Your task to perform on an android device: Open Youtube and go to "Your channel" Image 0: 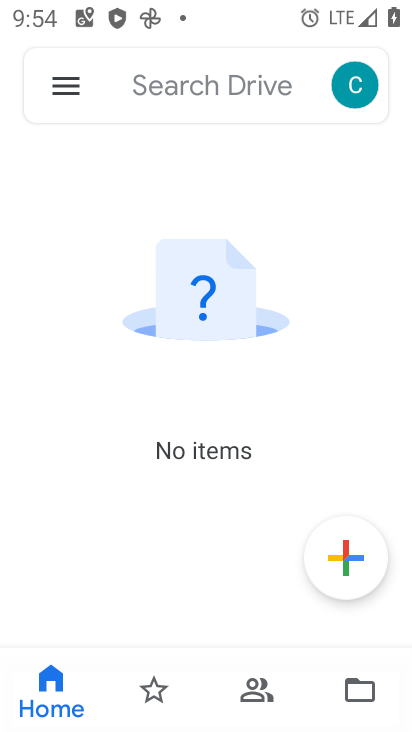
Step 0: press home button
Your task to perform on an android device: Open Youtube and go to "Your channel" Image 1: 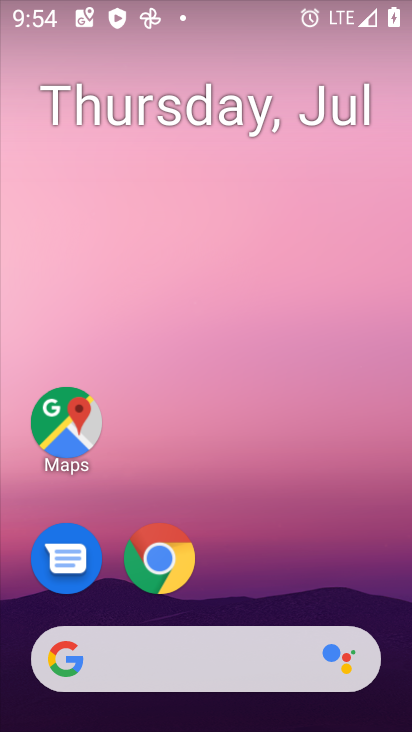
Step 1: drag from (315, 556) to (330, 289)
Your task to perform on an android device: Open Youtube and go to "Your channel" Image 2: 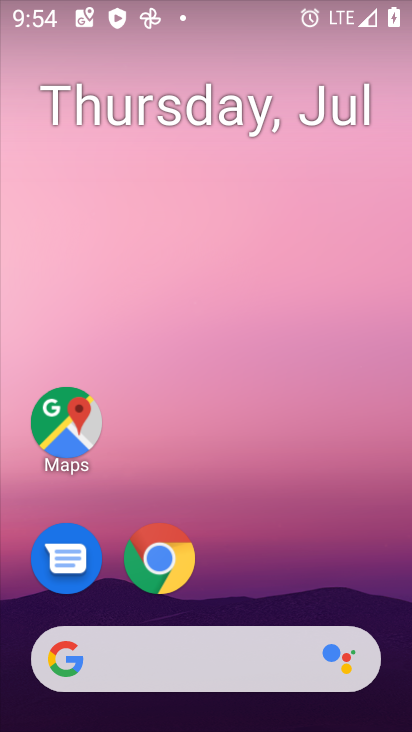
Step 2: drag from (307, 550) to (331, 0)
Your task to perform on an android device: Open Youtube and go to "Your channel" Image 3: 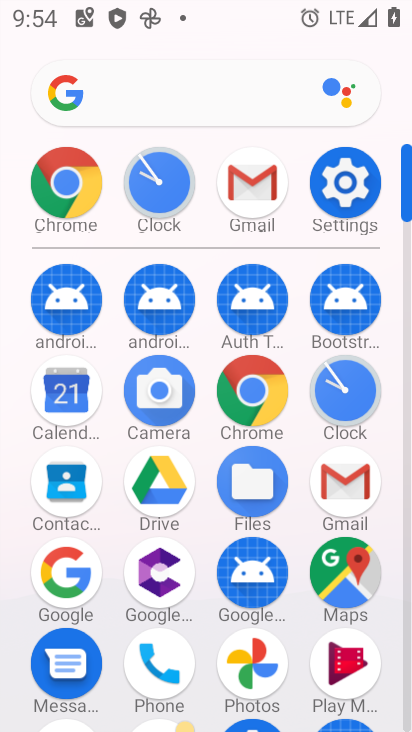
Step 3: drag from (390, 621) to (403, 373)
Your task to perform on an android device: Open Youtube and go to "Your channel" Image 4: 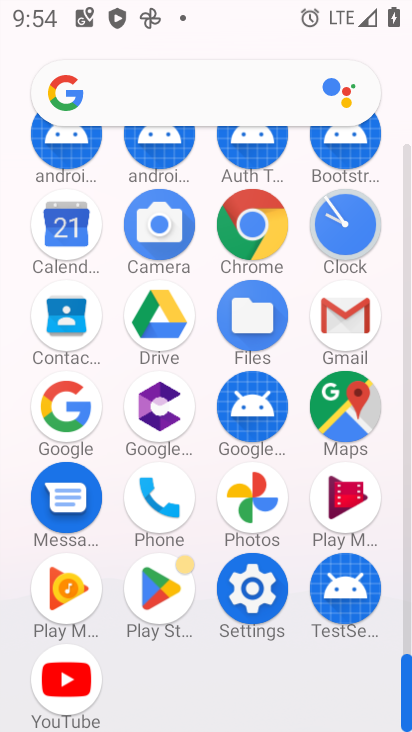
Step 4: click (71, 676)
Your task to perform on an android device: Open Youtube and go to "Your channel" Image 5: 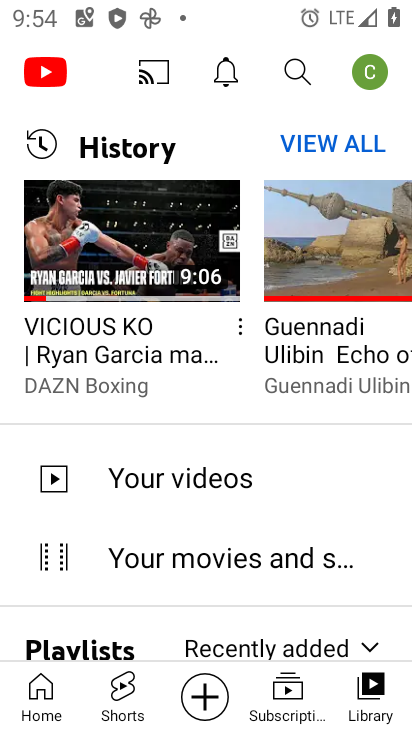
Step 5: click (372, 66)
Your task to perform on an android device: Open Youtube and go to "Your channel" Image 6: 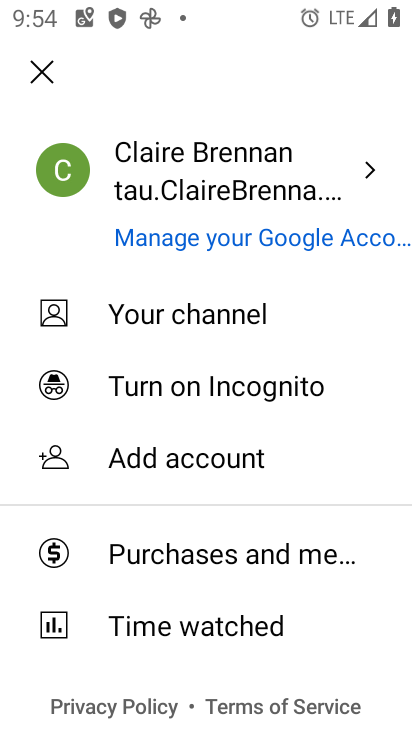
Step 6: click (250, 323)
Your task to perform on an android device: Open Youtube and go to "Your channel" Image 7: 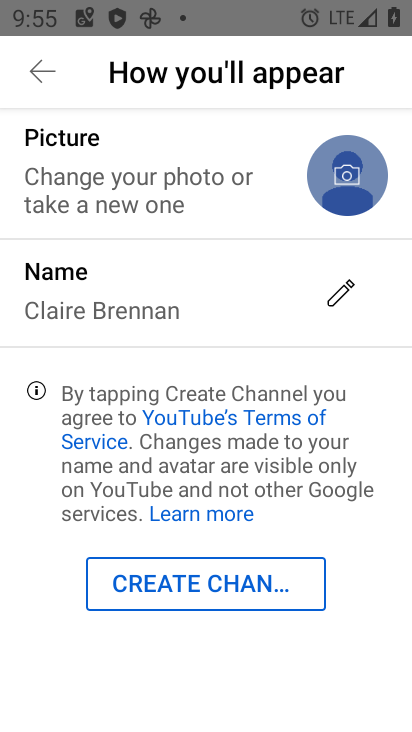
Step 7: task complete